Your task to perform on an android device: change notification settings in the gmail app Image 0: 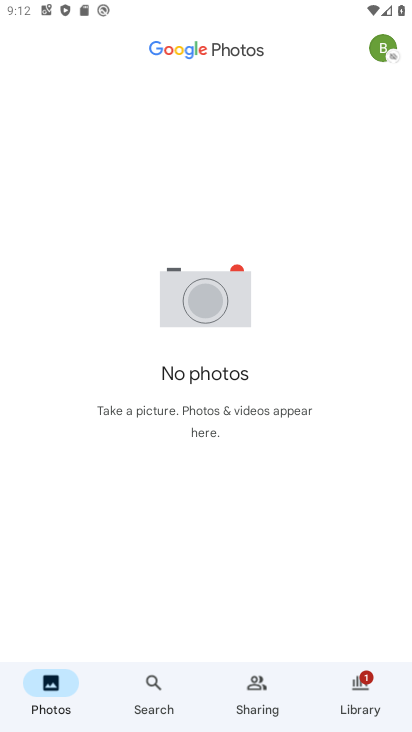
Step 0: press home button
Your task to perform on an android device: change notification settings in the gmail app Image 1: 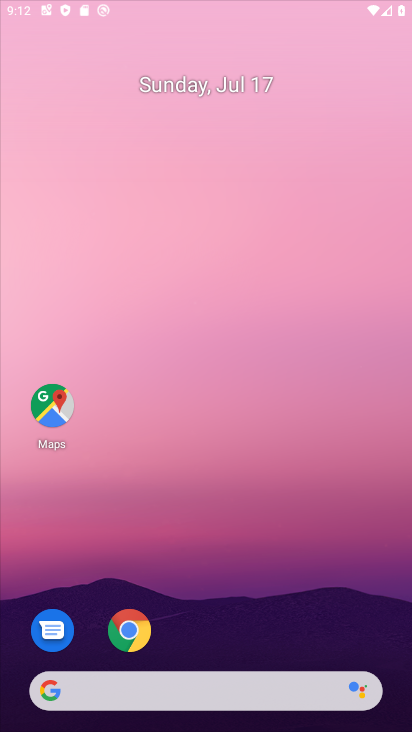
Step 1: drag from (264, 661) to (252, 18)
Your task to perform on an android device: change notification settings in the gmail app Image 2: 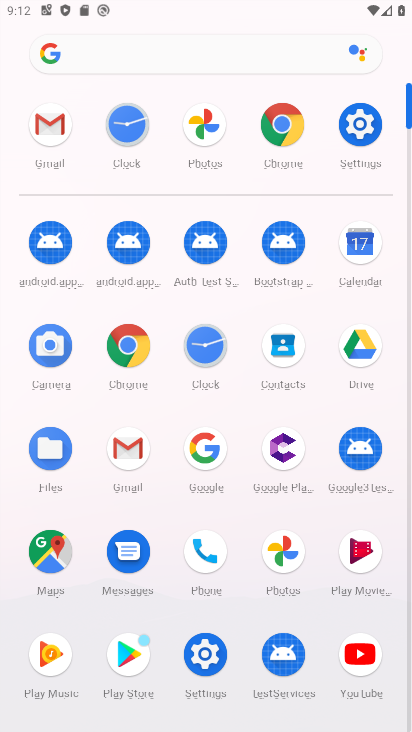
Step 2: click (136, 451)
Your task to perform on an android device: change notification settings in the gmail app Image 3: 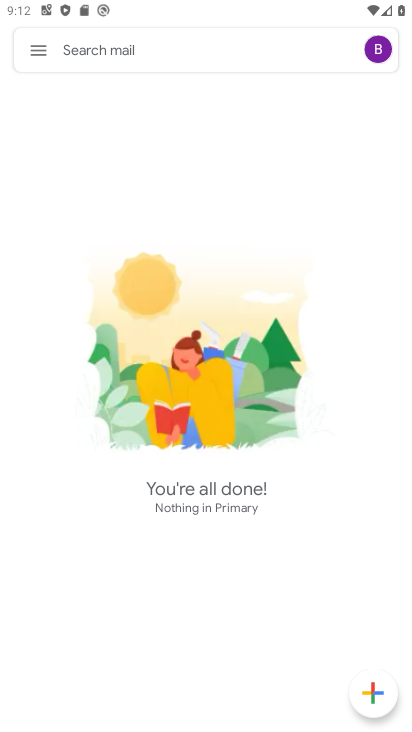
Step 3: click (31, 47)
Your task to perform on an android device: change notification settings in the gmail app Image 4: 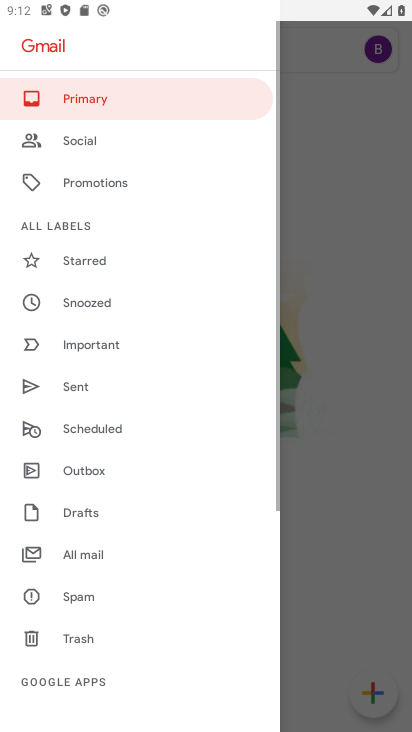
Step 4: drag from (90, 652) to (35, 65)
Your task to perform on an android device: change notification settings in the gmail app Image 5: 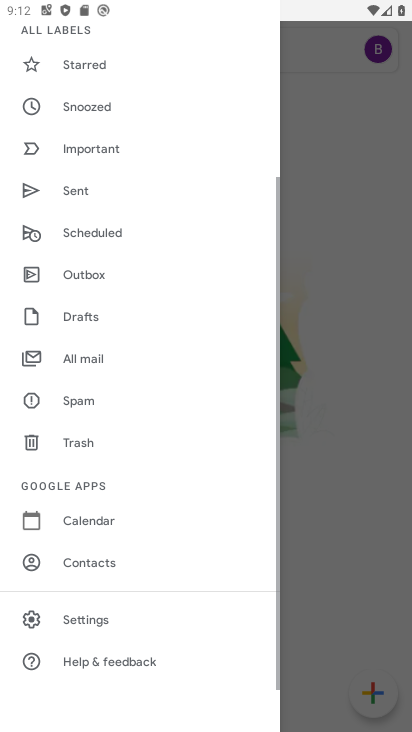
Step 5: click (116, 634)
Your task to perform on an android device: change notification settings in the gmail app Image 6: 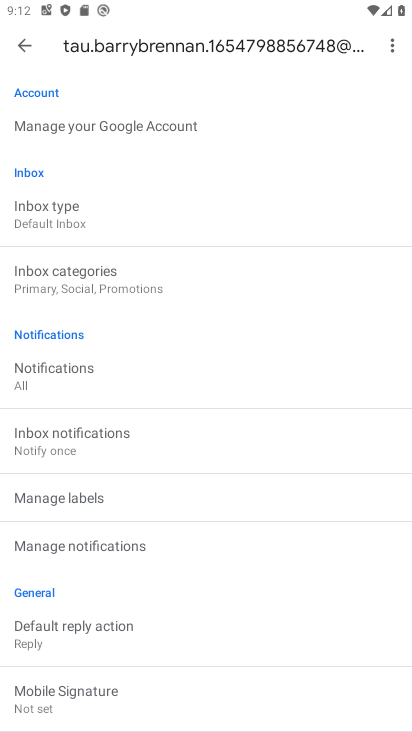
Step 6: click (75, 540)
Your task to perform on an android device: change notification settings in the gmail app Image 7: 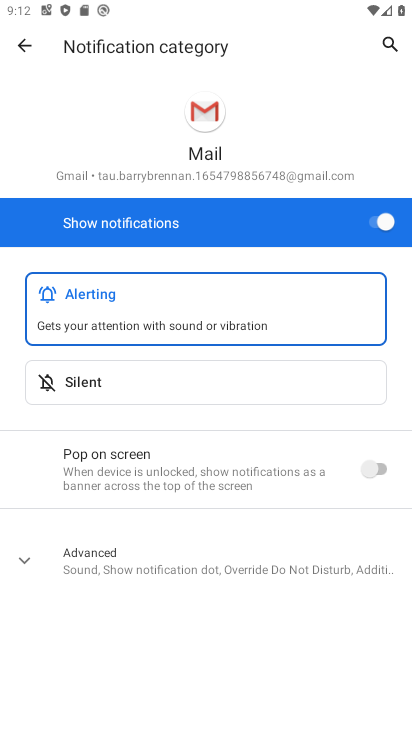
Step 7: click (375, 222)
Your task to perform on an android device: change notification settings in the gmail app Image 8: 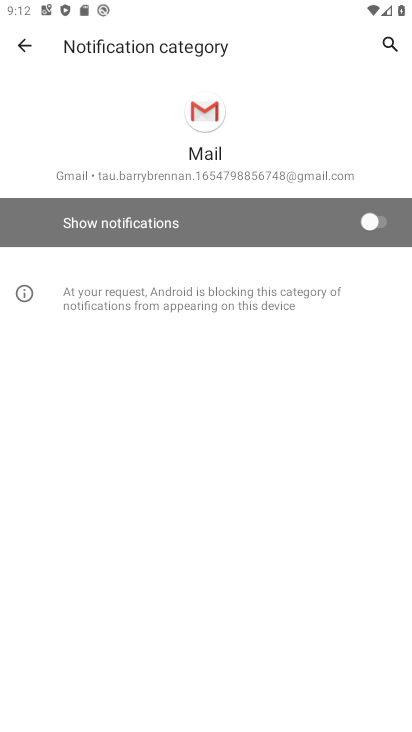
Step 8: task complete